Your task to perform on an android device: find snoozed emails in the gmail app Image 0: 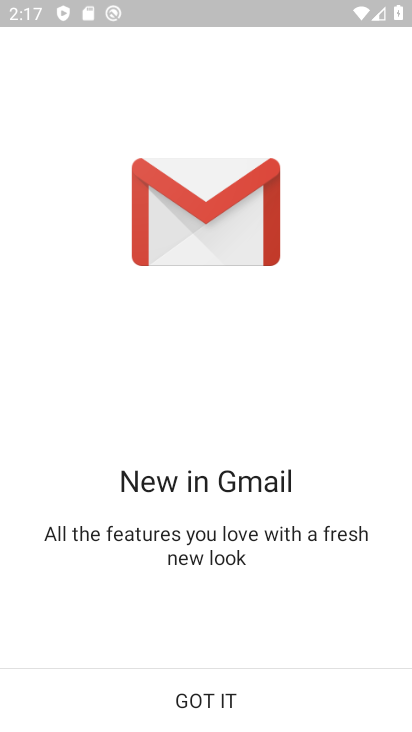
Step 0: click (168, 681)
Your task to perform on an android device: find snoozed emails in the gmail app Image 1: 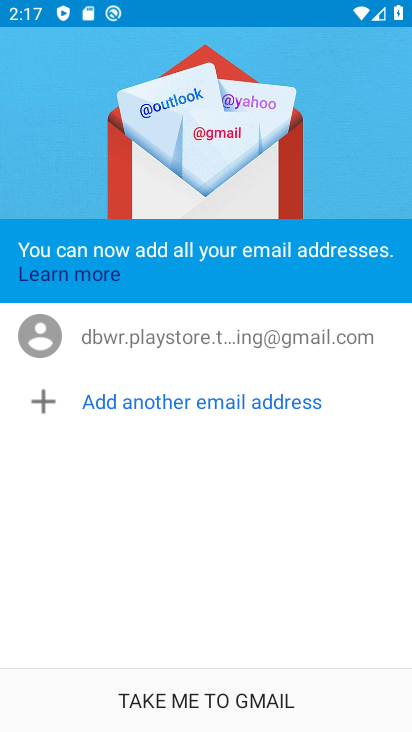
Step 1: click (192, 702)
Your task to perform on an android device: find snoozed emails in the gmail app Image 2: 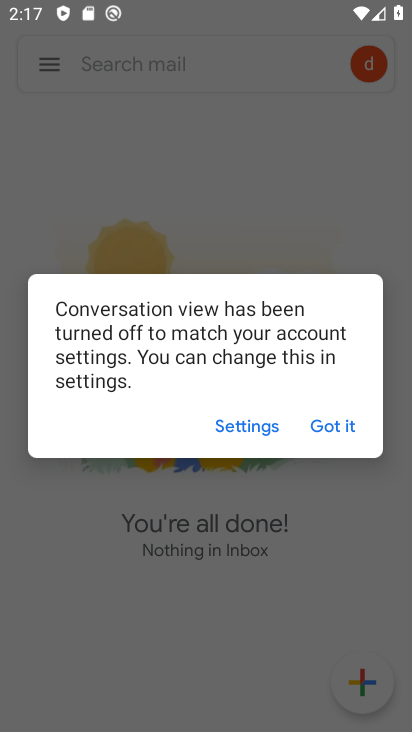
Step 2: click (347, 424)
Your task to perform on an android device: find snoozed emails in the gmail app Image 3: 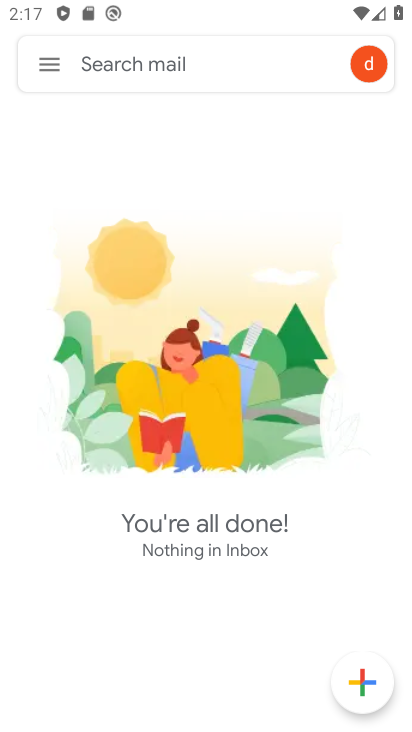
Step 3: click (64, 65)
Your task to perform on an android device: find snoozed emails in the gmail app Image 4: 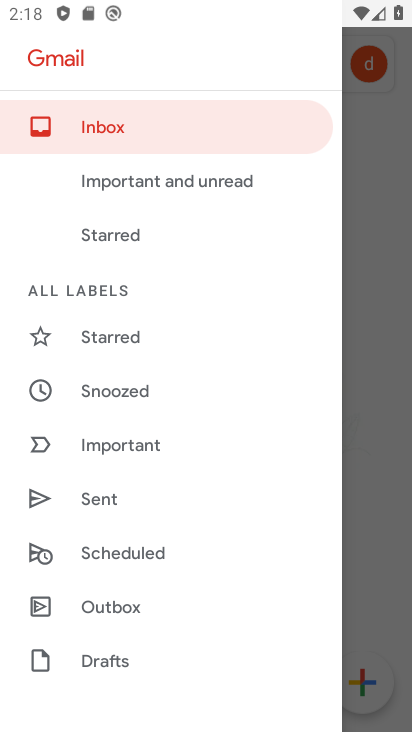
Step 4: click (131, 390)
Your task to perform on an android device: find snoozed emails in the gmail app Image 5: 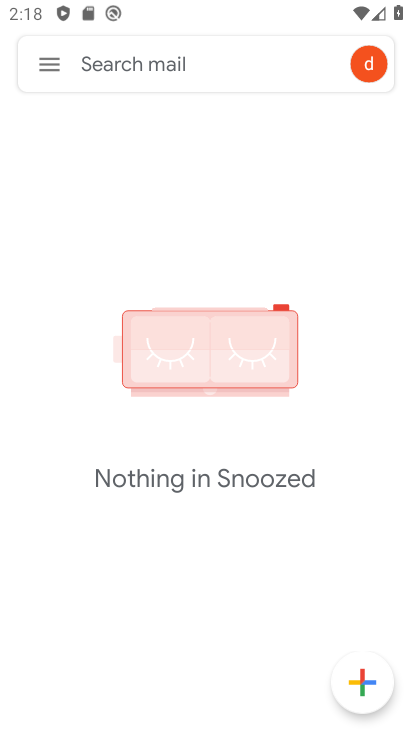
Step 5: task complete